Your task to perform on an android device: turn off improve location accuracy Image 0: 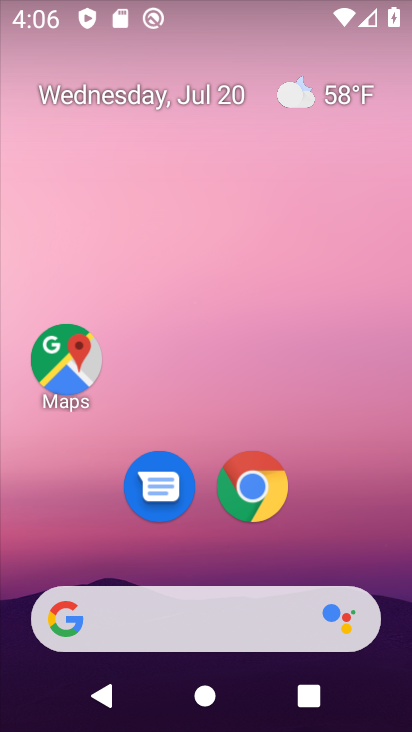
Step 0: drag from (170, 594) to (270, 54)
Your task to perform on an android device: turn off improve location accuracy Image 1: 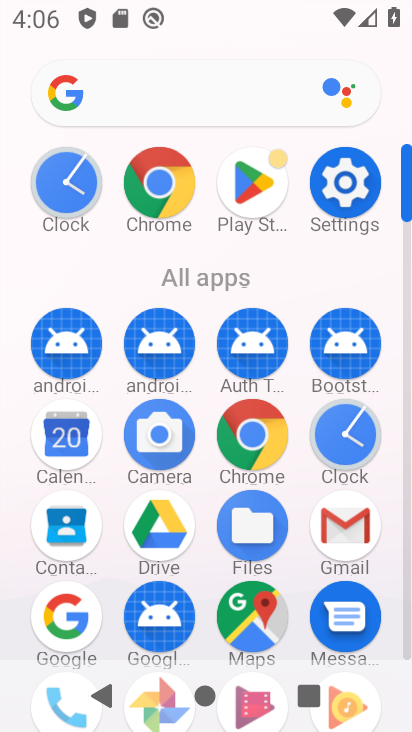
Step 1: click (325, 173)
Your task to perform on an android device: turn off improve location accuracy Image 2: 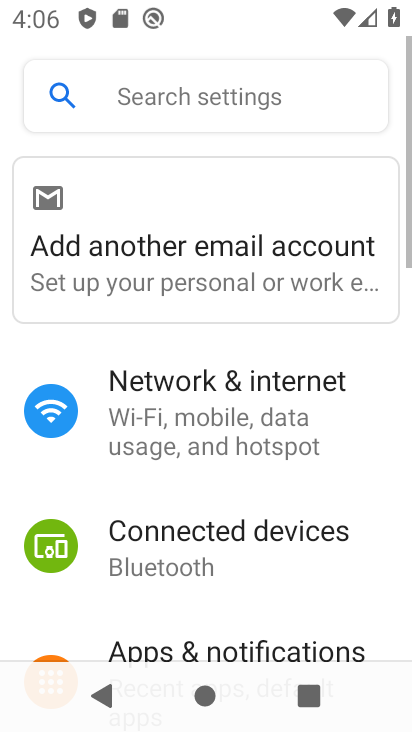
Step 2: drag from (154, 615) to (236, 158)
Your task to perform on an android device: turn off improve location accuracy Image 3: 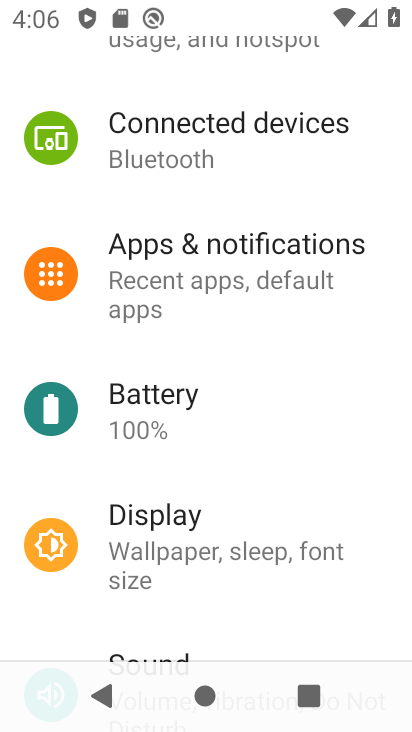
Step 3: drag from (156, 572) to (200, 154)
Your task to perform on an android device: turn off improve location accuracy Image 4: 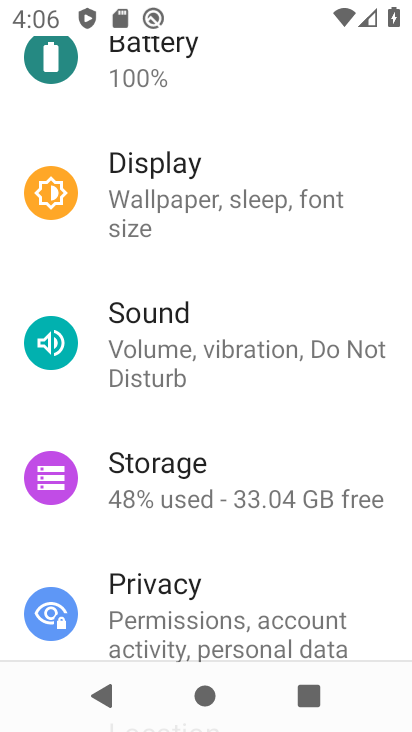
Step 4: drag from (155, 576) to (285, 150)
Your task to perform on an android device: turn off improve location accuracy Image 5: 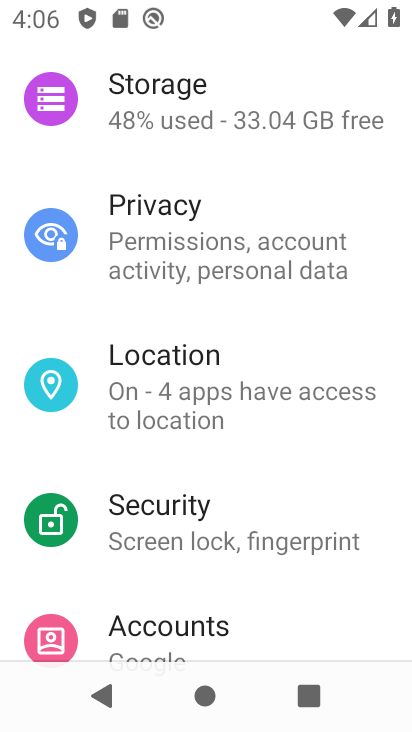
Step 5: click (149, 388)
Your task to perform on an android device: turn off improve location accuracy Image 6: 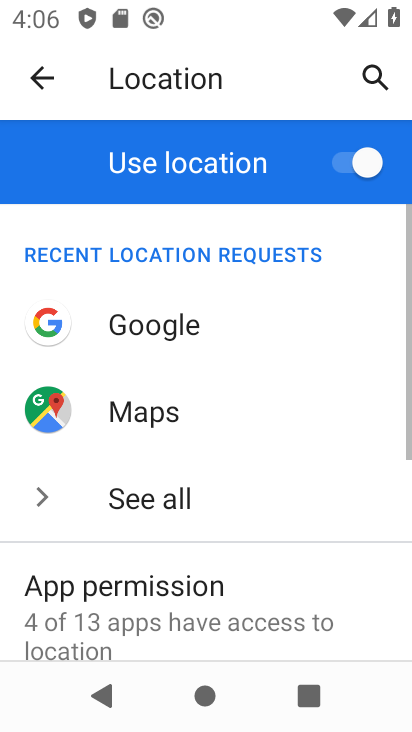
Step 6: drag from (119, 598) to (246, 127)
Your task to perform on an android device: turn off improve location accuracy Image 7: 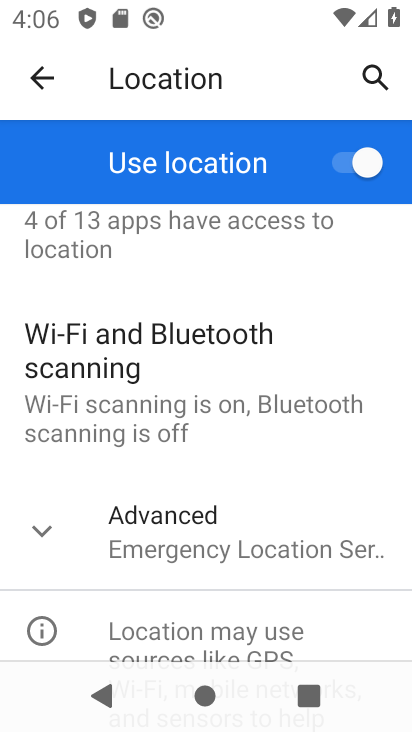
Step 7: click (142, 539)
Your task to perform on an android device: turn off improve location accuracy Image 8: 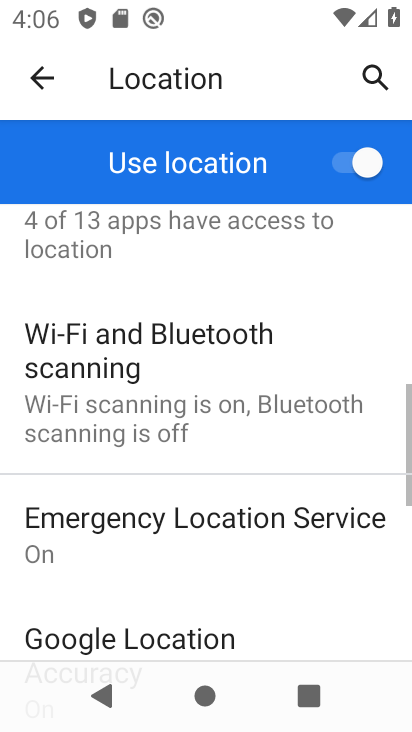
Step 8: drag from (141, 632) to (221, 224)
Your task to perform on an android device: turn off improve location accuracy Image 9: 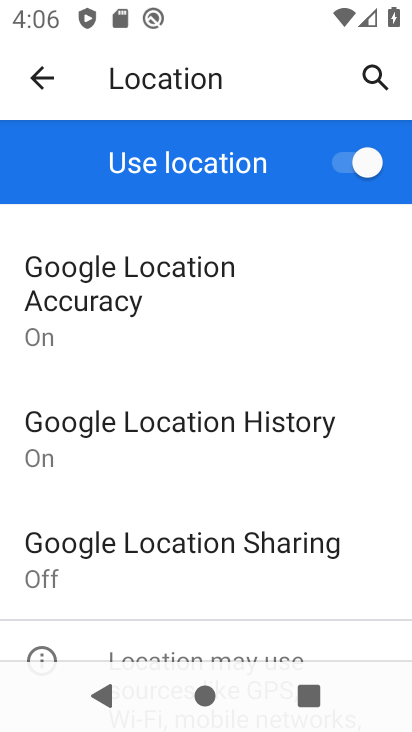
Step 9: click (134, 290)
Your task to perform on an android device: turn off improve location accuracy Image 10: 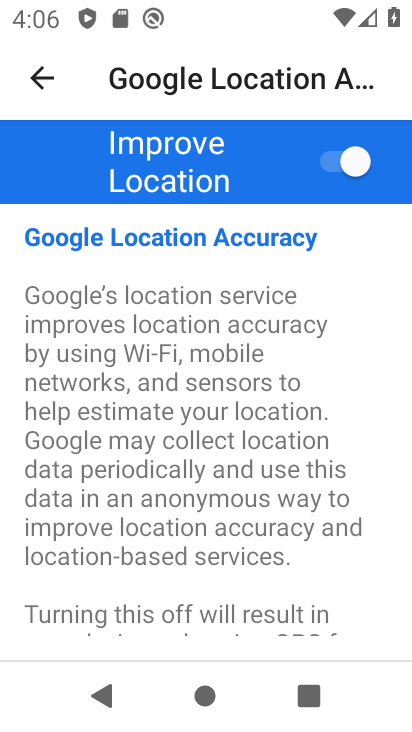
Step 10: click (352, 160)
Your task to perform on an android device: turn off improve location accuracy Image 11: 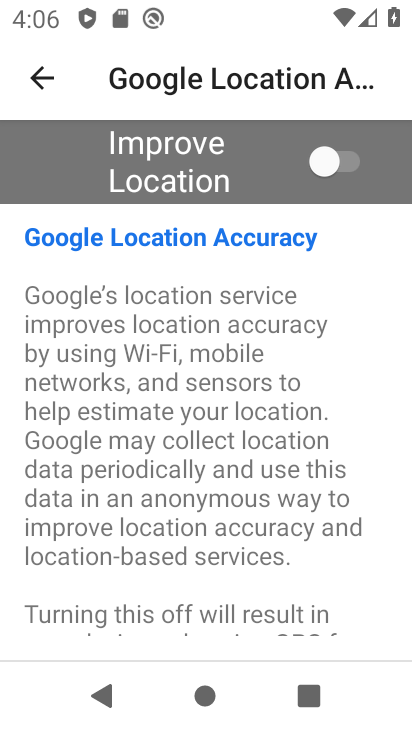
Step 11: task complete